Your task to perform on an android device: turn off wifi Image 0: 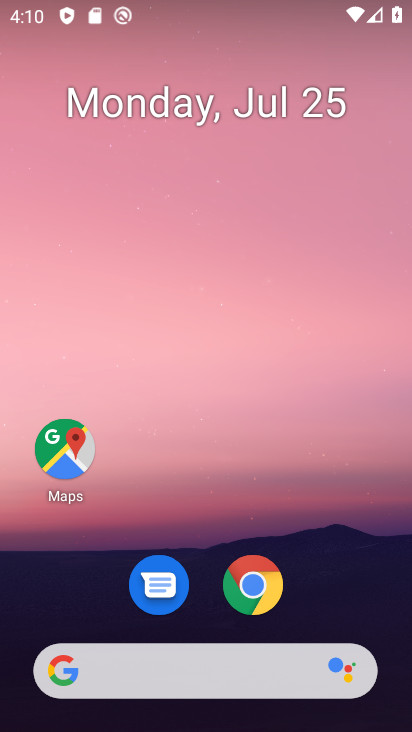
Step 0: drag from (343, 606) to (411, 179)
Your task to perform on an android device: turn off wifi Image 1: 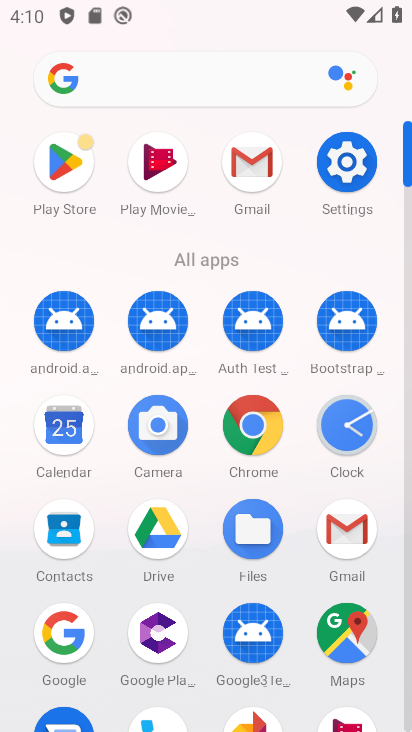
Step 1: click (344, 157)
Your task to perform on an android device: turn off wifi Image 2: 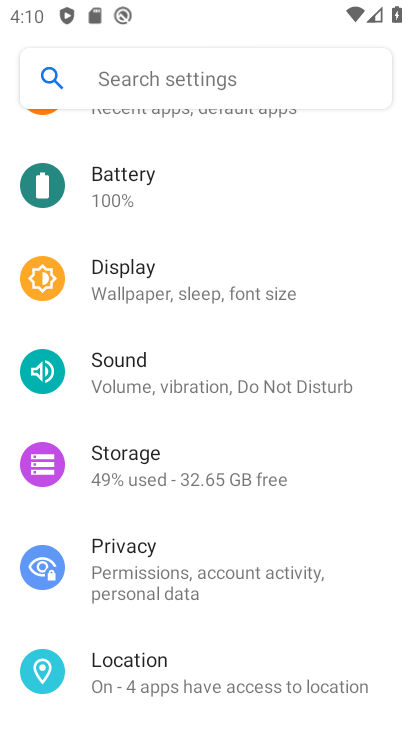
Step 2: drag from (236, 176) to (200, 578)
Your task to perform on an android device: turn off wifi Image 3: 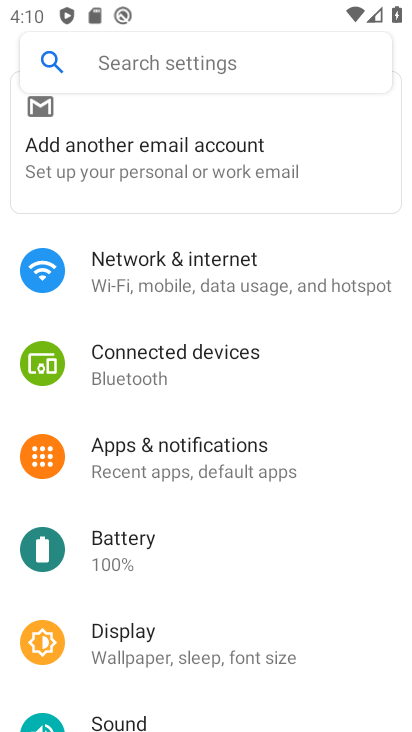
Step 3: click (264, 288)
Your task to perform on an android device: turn off wifi Image 4: 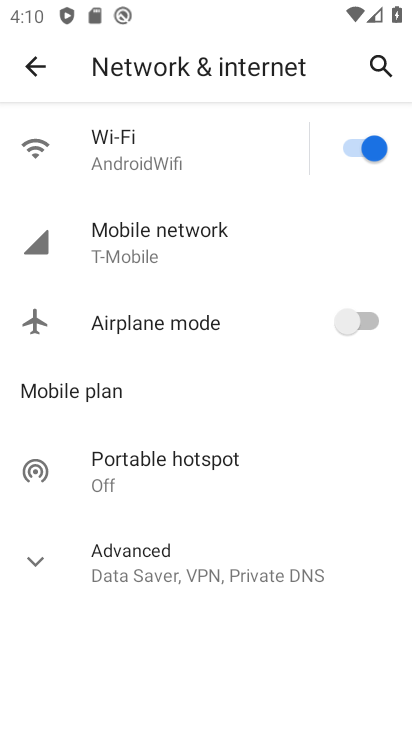
Step 4: click (355, 143)
Your task to perform on an android device: turn off wifi Image 5: 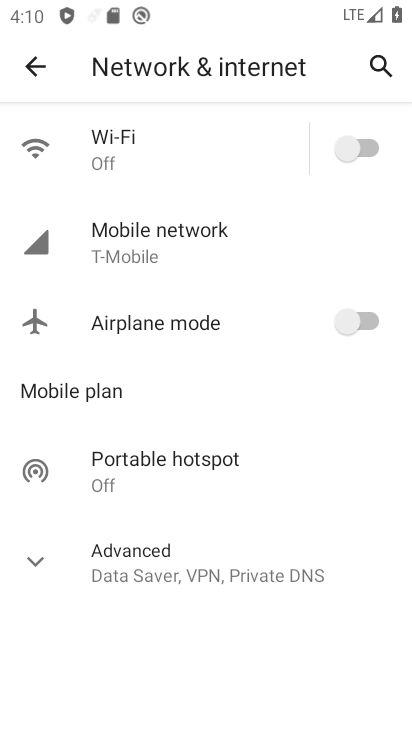
Step 5: task complete